Your task to perform on an android device: Show me popular videos on Youtube Image 0: 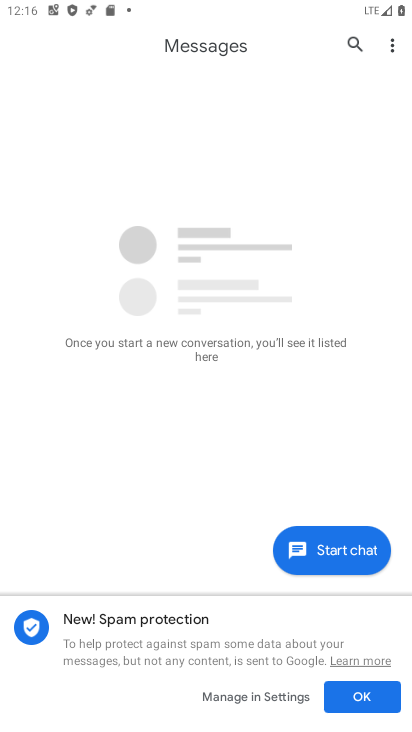
Step 0: press home button
Your task to perform on an android device: Show me popular videos on Youtube Image 1: 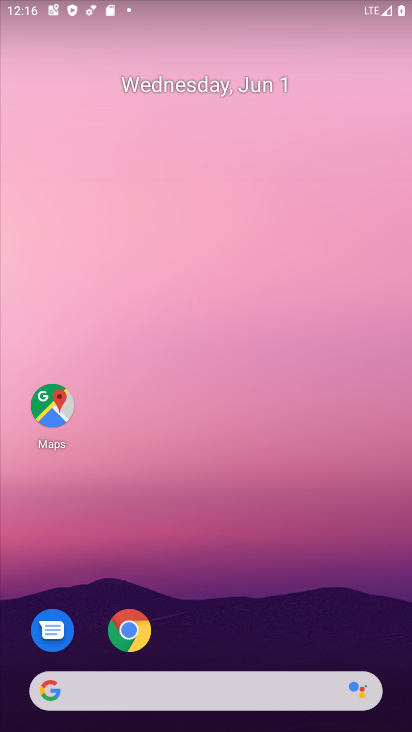
Step 1: drag from (328, 584) to (315, 228)
Your task to perform on an android device: Show me popular videos on Youtube Image 2: 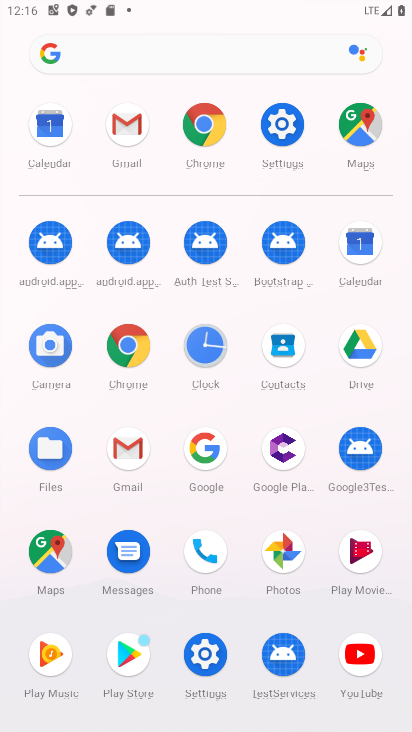
Step 2: click (369, 662)
Your task to perform on an android device: Show me popular videos on Youtube Image 3: 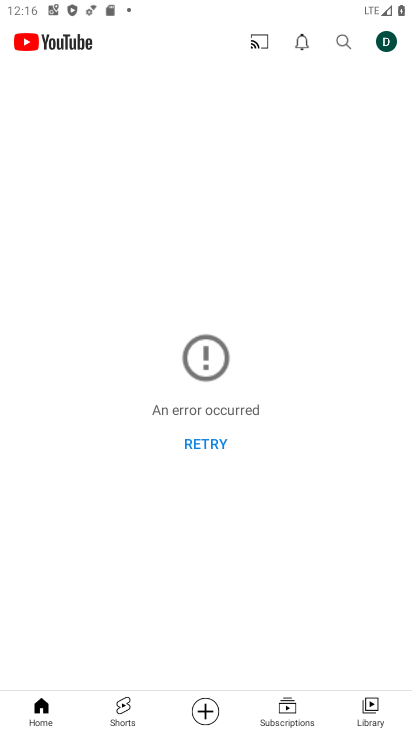
Step 3: click (375, 706)
Your task to perform on an android device: Show me popular videos on Youtube Image 4: 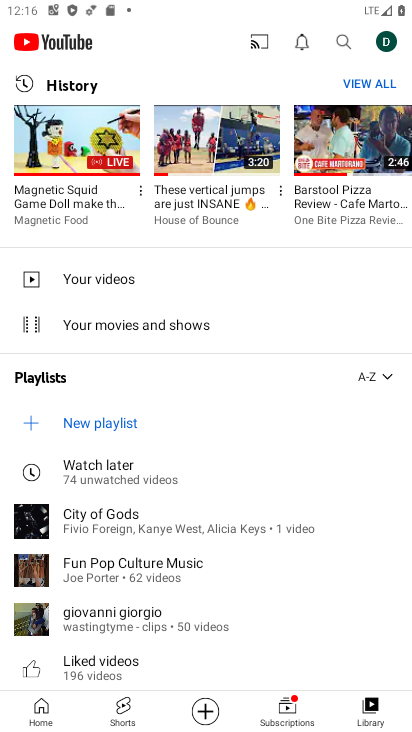
Step 4: click (40, 717)
Your task to perform on an android device: Show me popular videos on Youtube Image 5: 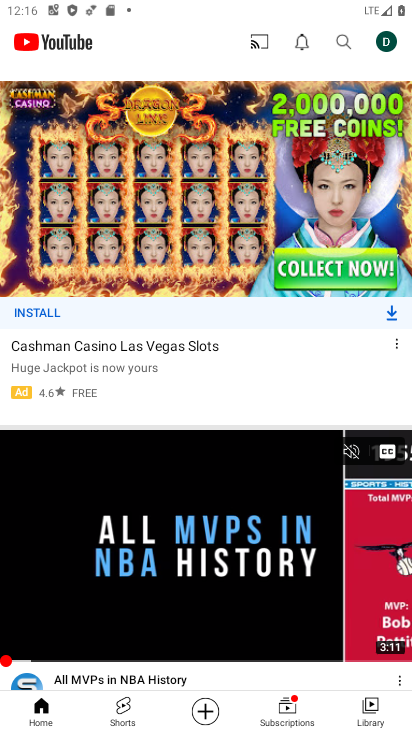
Step 5: drag from (315, 356) to (316, 523)
Your task to perform on an android device: Show me popular videos on Youtube Image 6: 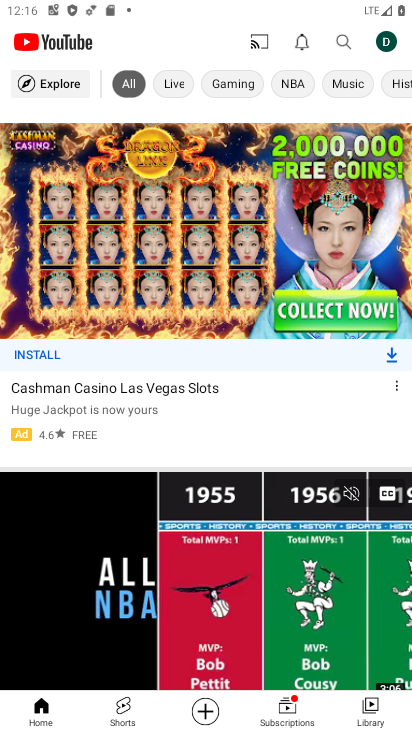
Step 6: click (67, 83)
Your task to perform on an android device: Show me popular videos on Youtube Image 7: 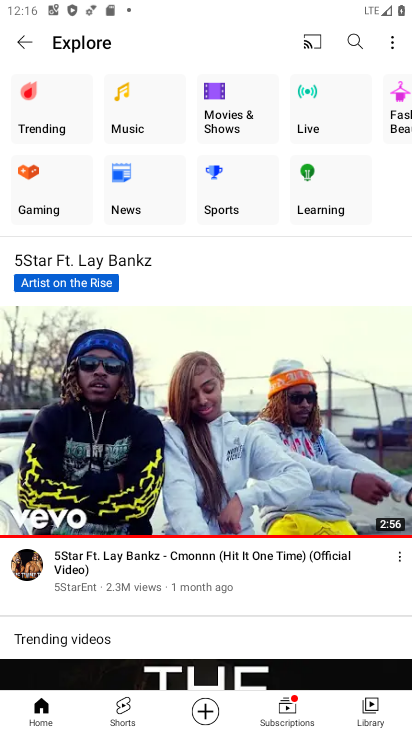
Step 7: click (40, 119)
Your task to perform on an android device: Show me popular videos on Youtube Image 8: 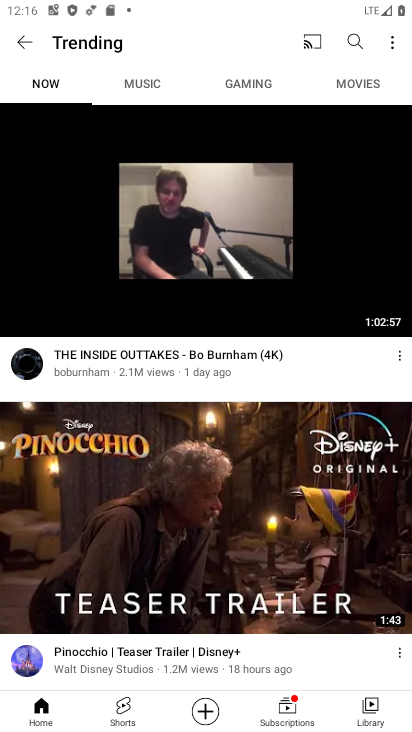
Step 8: task complete